Your task to perform on an android device: Go to ESPN.com Image 0: 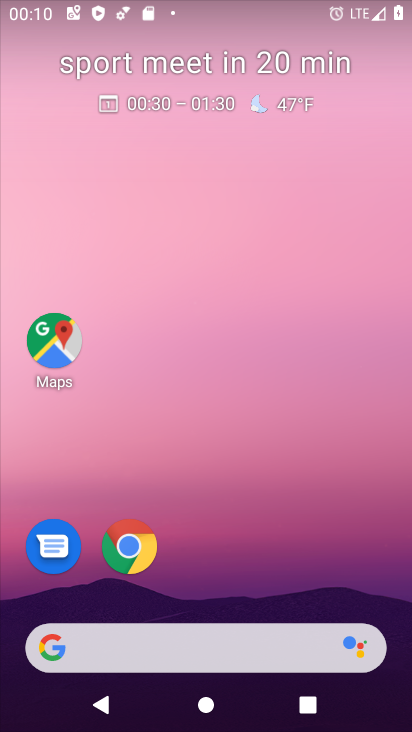
Step 0: click (130, 547)
Your task to perform on an android device: Go to ESPN.com Image 1: 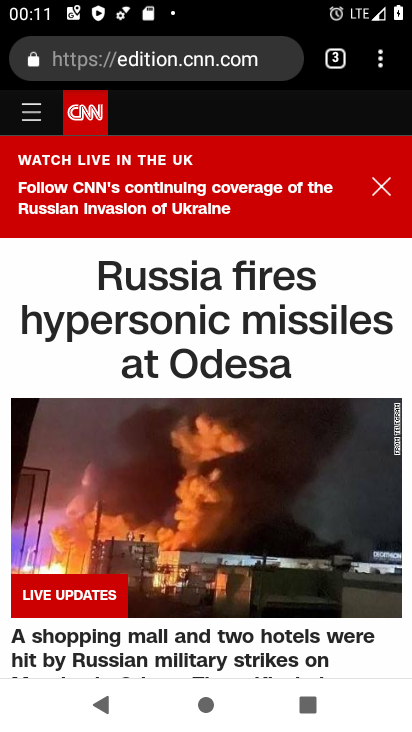
Step 1: click (202, 65)
Your task to perform on an android device: Go to ESPN.com Image 2: 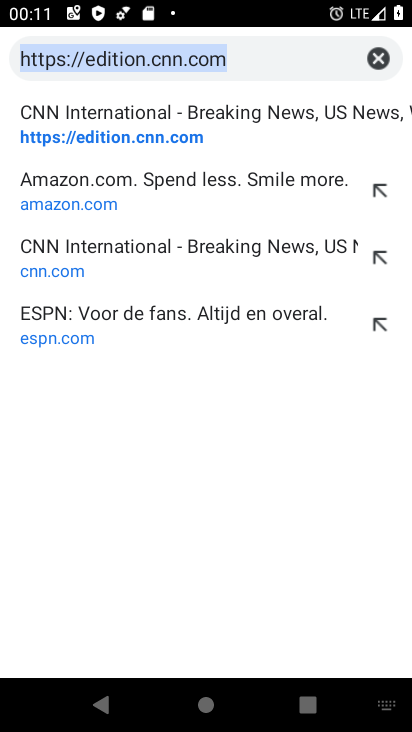
Step 2: click (33, 333)
Your task to perform on an android device: Go to ESPN.com Image 3: 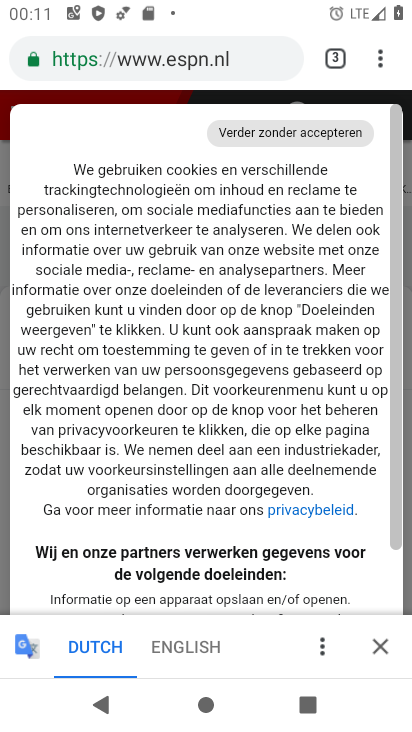
Step 3: task complete